Your task to perform on an android device: Open maps Image 0: 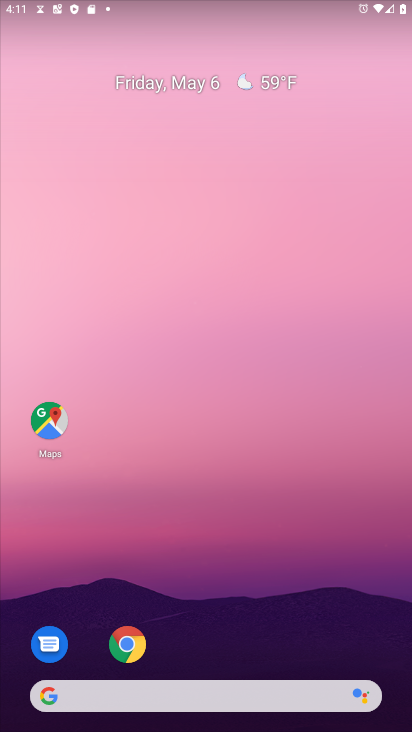
Step 0: click (44, 417)
Your task to perform on an android device: Open maps Image 1: 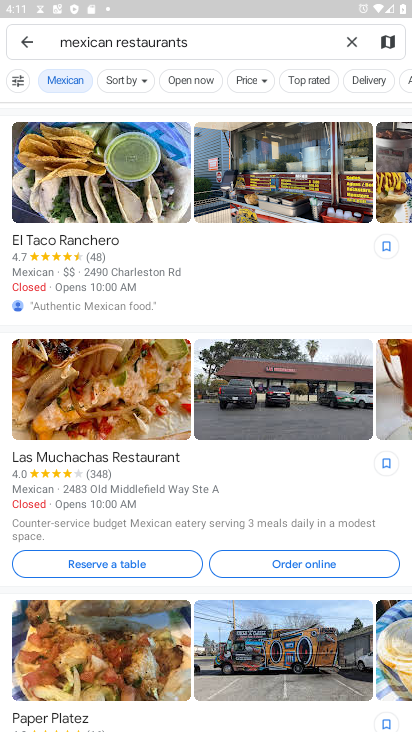
Step 1: task complete